Your task to perform on an android device: turn off translation in the chrome app Image 0: 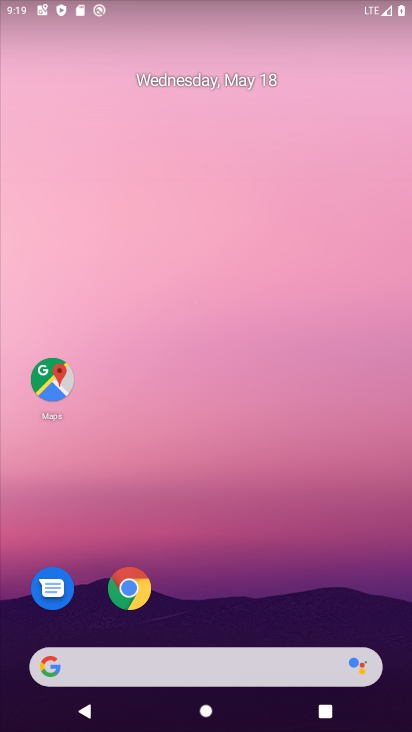
Step 0: click (133, 602)
Your task to perform on an android device: turn off translation in the chrome app Image 1: 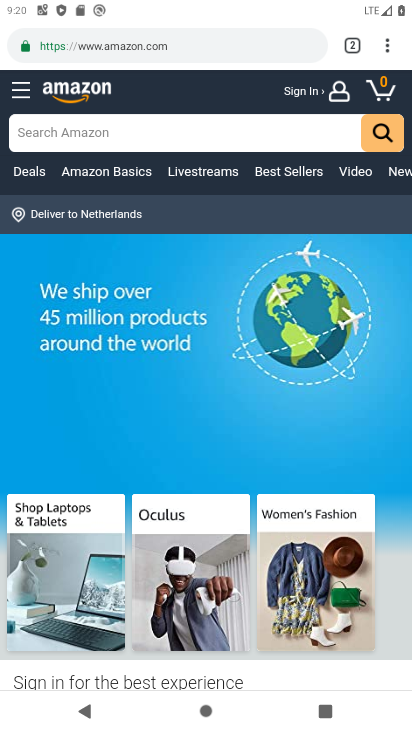
Step 1: click (385, 43)
Your task to perform on an android device: turn off translation in the chrome app Image 2: 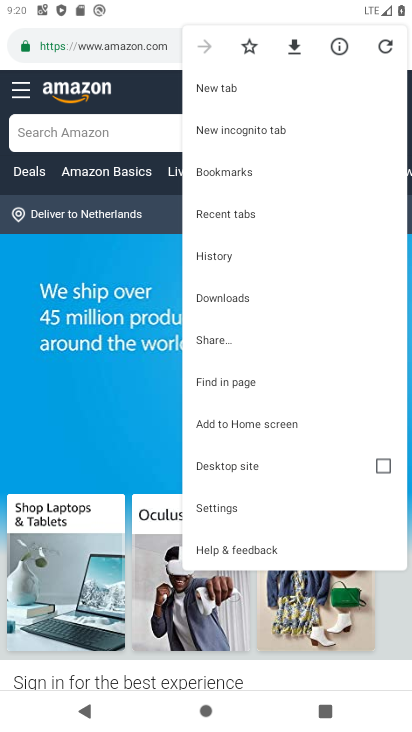
Step 2: click (238, 507)
Your task to perform on an android device: turn off translation in the chrome app Image 3: 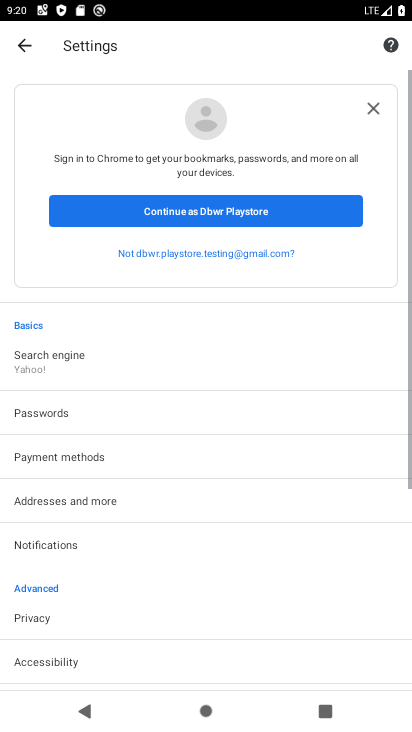
Step 3: drag from (196, 573) to (172, 221)
Your task to perform on an android device: turn off translation in the chrome app Image 4: 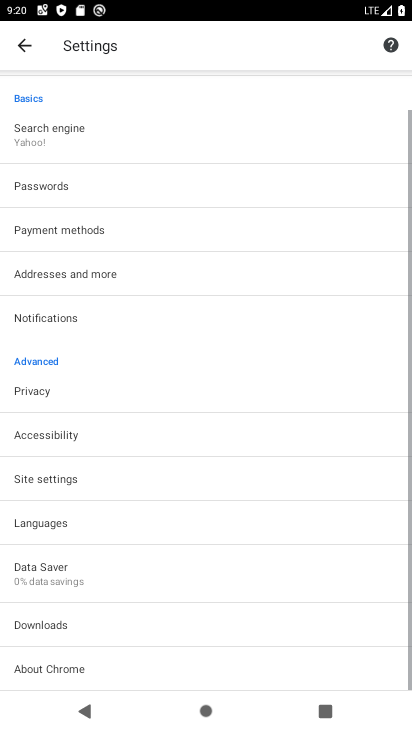
Step 4: click (56, 526)
Your task to perform on an android device: turn off translation in the chrome app Image 5: 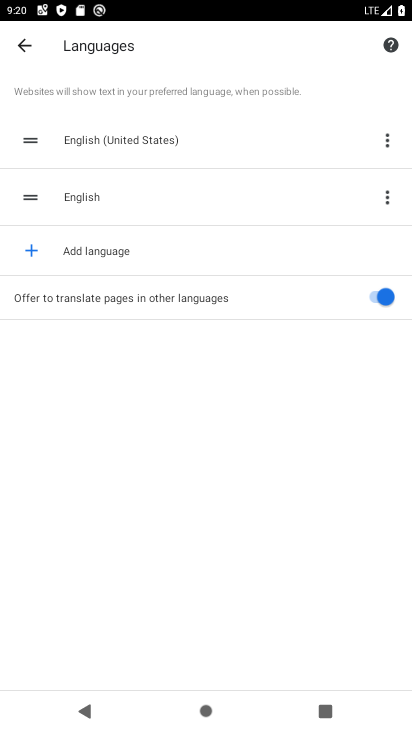
Step 5: click (371, 295)
Your task to perform on an android device: turn off translation in the chrome app Image 6: 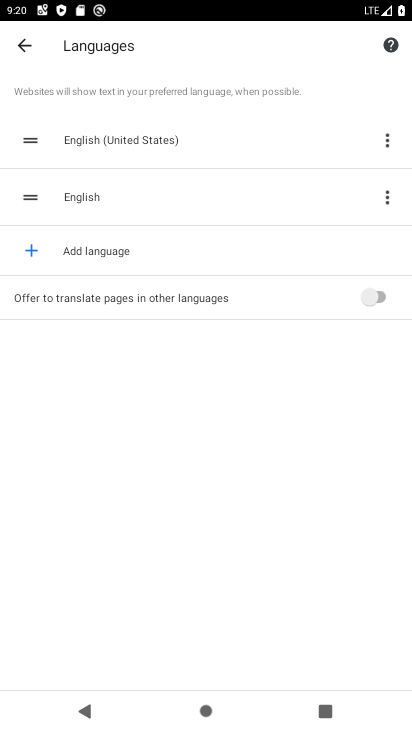
Step 6: task complete